Your task to perform on an android device: change your default location settings in chrome Image 0: 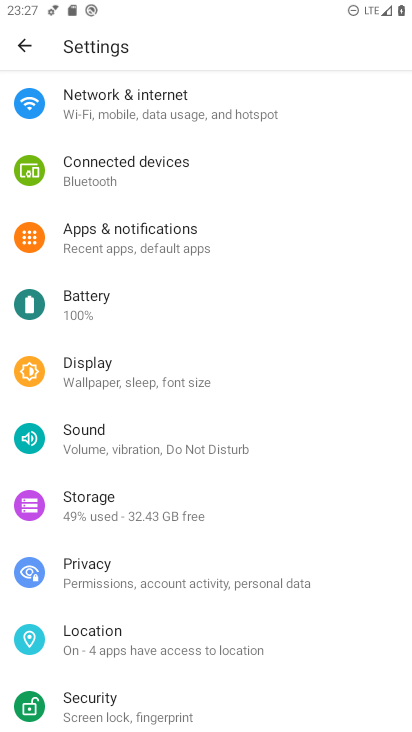
Step 0: press home button
Your task to perform on an android device: change your default location settings in chrome Image 1: 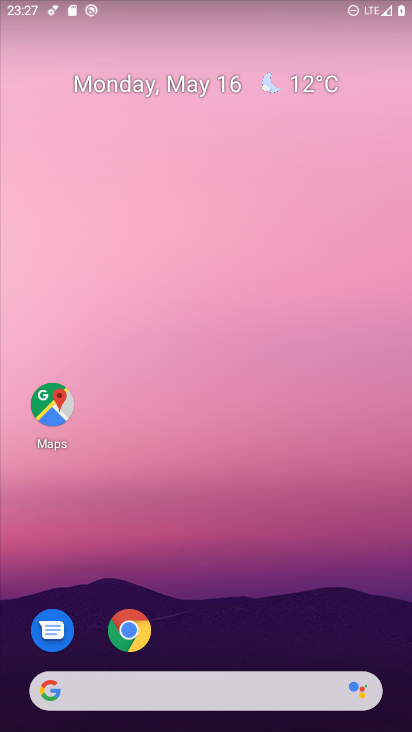
Step 1: drag from (267, 568) to (262, 332)
Your task to perform on an android device: change your default location settings in chrome Image 2: 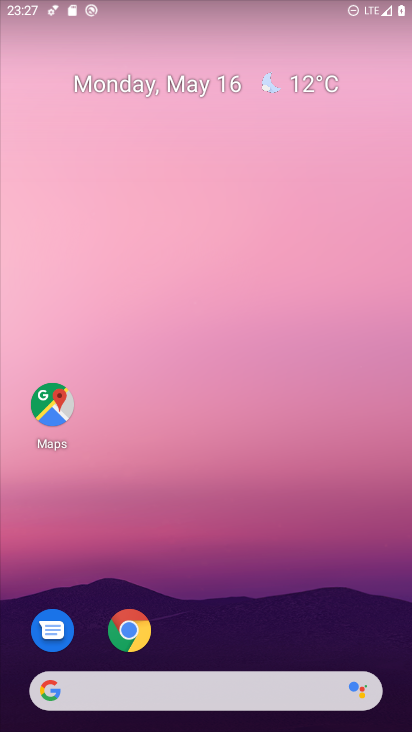
Step 2: click (133, 635)
Your task to perform on an android device: change your default location settings in chrome Image 3: 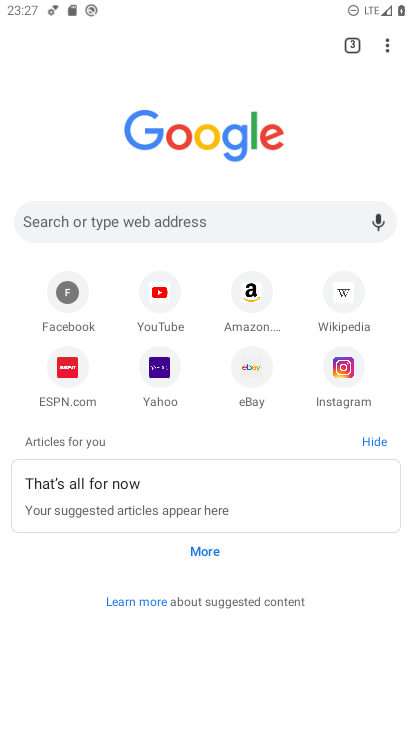
Step 3: click (384, 46)
Your task to perform on an android device: change your default location settings in chrome Image 4: 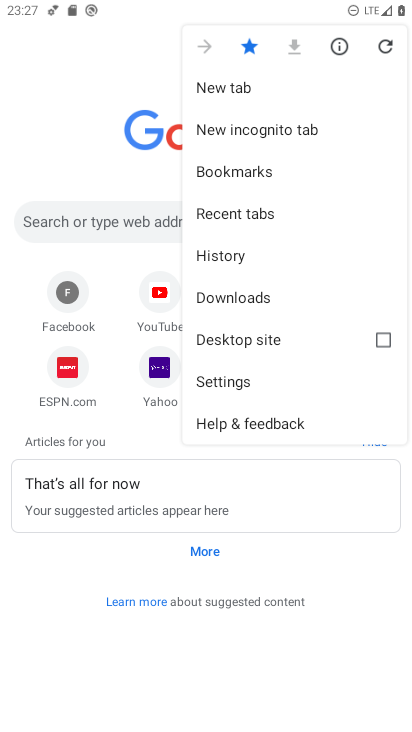
Step 4: click (247, 381)
Your task to perform on an android device: change your default location settings in chrome Image 5: 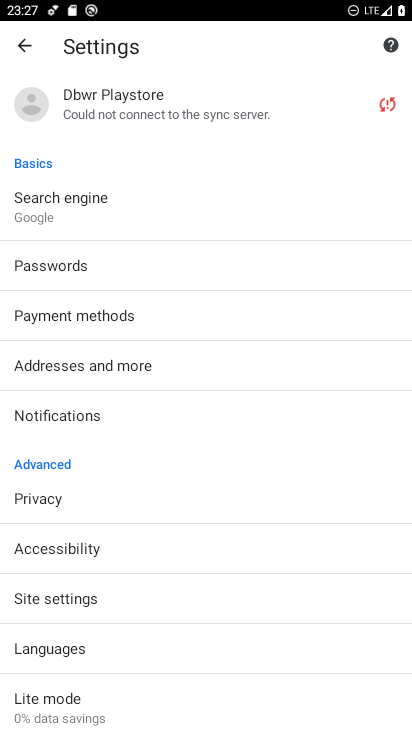
Step 5: click (133, 602)
Your task to perform on an android device: change your default location settings in chrome Image 6: 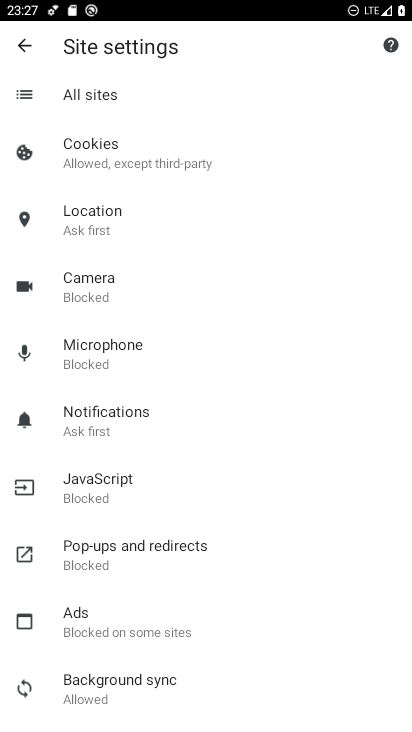
Step 6: click (197, 222)
Your task to perform on an android device: change your default location settings in chrome Image 7: 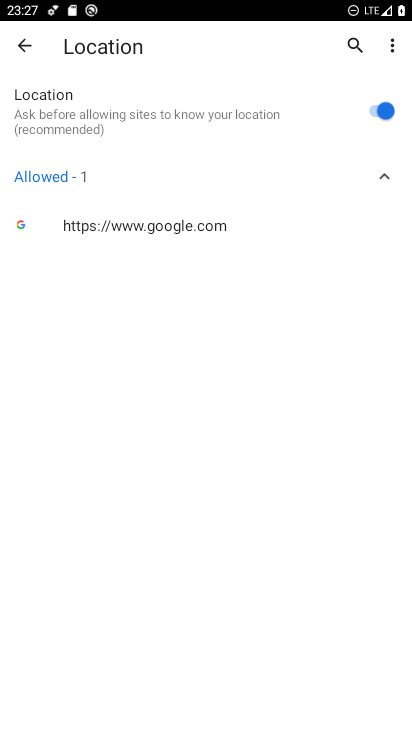
Step 7: click (369, 101)
Your task to perform on an android device: change your default location settings in chrome Image 8: 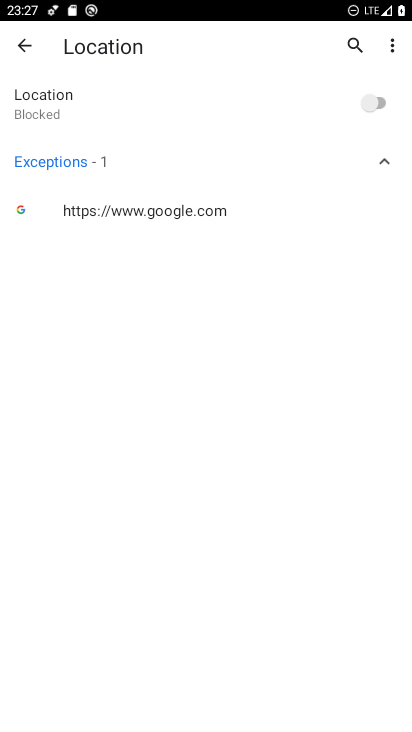
Step 8: task complete